Your task to perform on an android device: Open sound settings Image 0: 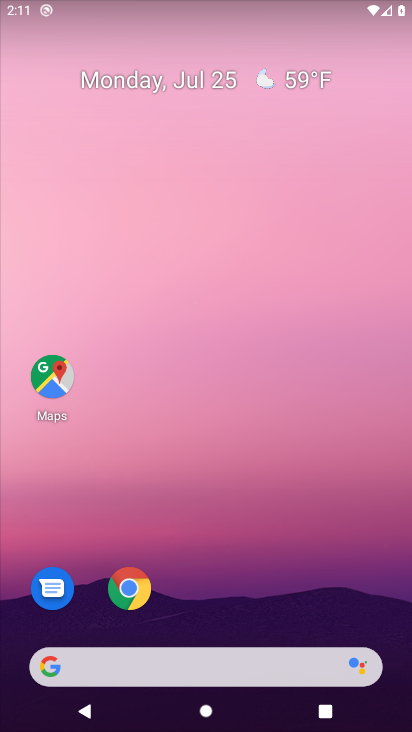
Step 0: click (237, 174)
Your task to perform on an android device: Open sound settings Image 1: 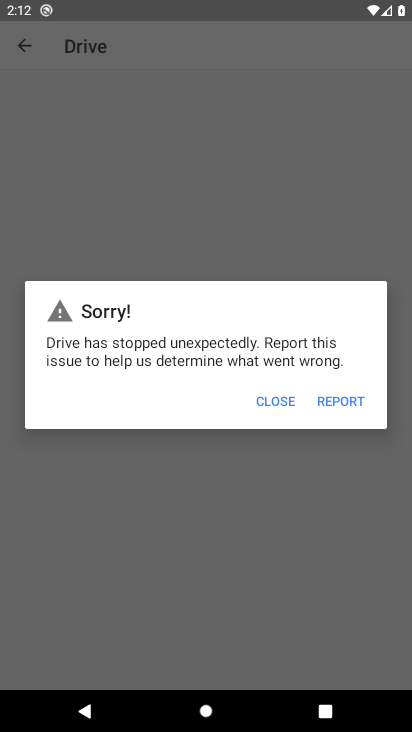
Step 1: press home button
Your task to perform on an android device: Open sound settings Image 2: 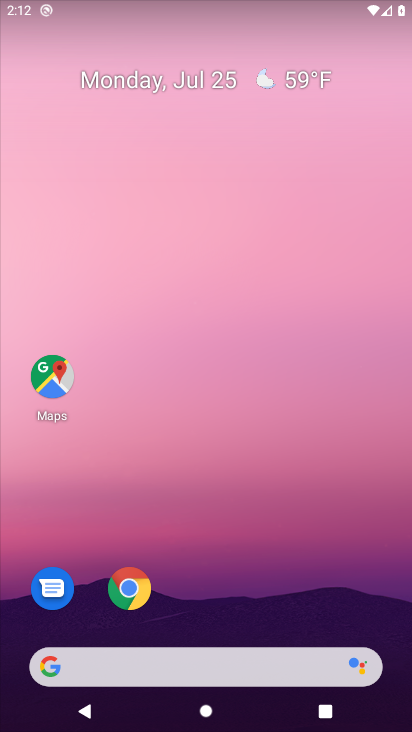
Step 2: drag from (358, 426) to (289, 14)
Your task to perform on an android device: Open sound settings Image 3: 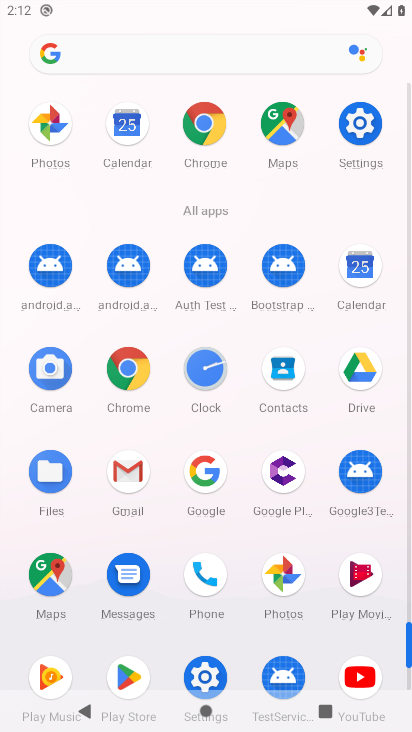
Step 3: click (357, 115)
Your task to perform on an android device: Open sound settings Image 4: 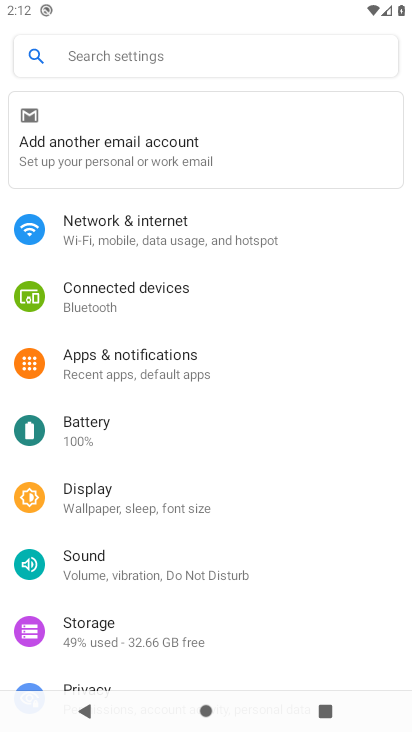
Step 4: click (78, 548)
Your task to perform on an android device: Open sound settings Image 5: 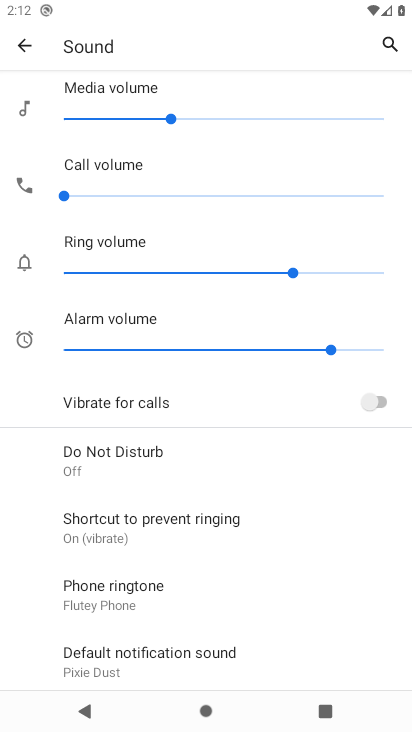
Step 5: task complete